Your task to perform on an android device: Clear the shopping cart on amazon.com. Search for lenovo thinkpad on amazon.com, select the first entry, and add it to the cart. Image 0: 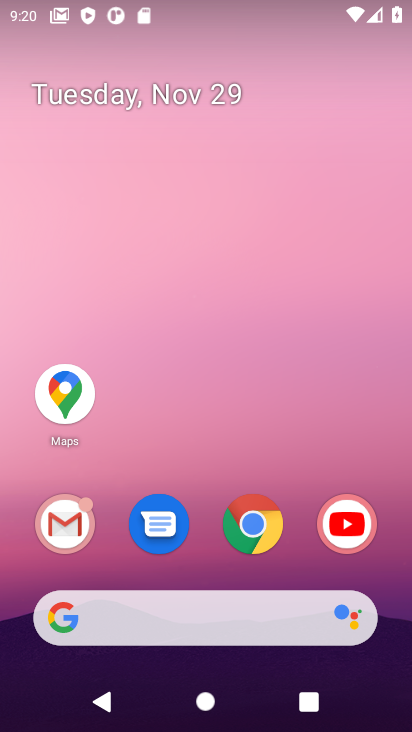
Step 0: click (266, 527)
Your task to perform on an android device: Clear the shopping cart on amazon.com. Search for lenovo thinkpad on amazon.com, select the first entry, and add it to the cart. Image 1: 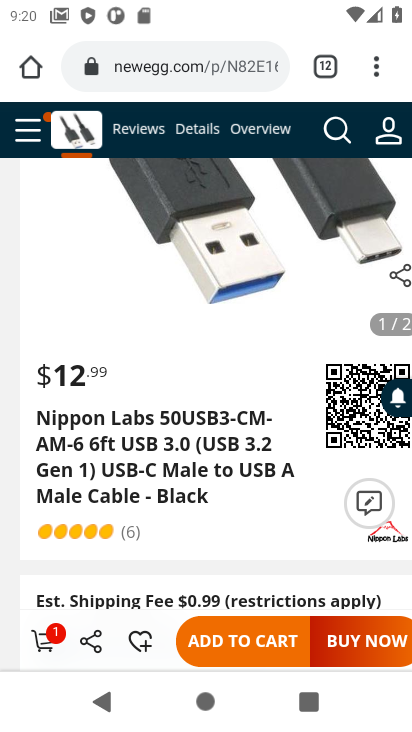
Step 1: click (177, 70)
Your task to perform on an android device: Clear the shopping cart on amazon.com. Search for lenovo thinkpad on amazon.com, select the first entry, and add it to the cart. Image 2: 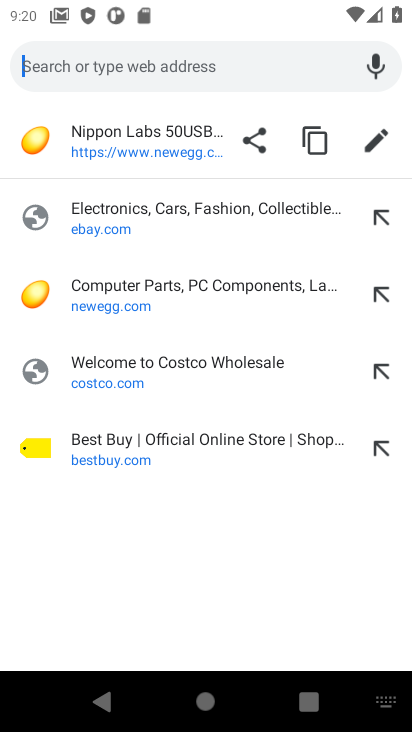
Step 2: type "amazon.com"
Your task to perform on an android device: Clear the shopping cart on amazon.com. Search for lenovo thinkpad on amazon.com, select the first entry, and add it to the cart. Image 3: 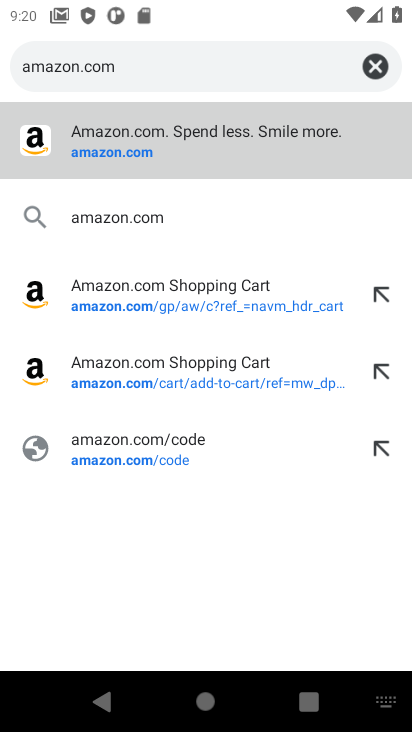
Step 3: click (102, 155)
Your task to perform on an android device: Clear the shopping cart on amazon.com. Search for lenovo thinkpad on amazon.com, select the first entry, and add it to the cart. Image 4: 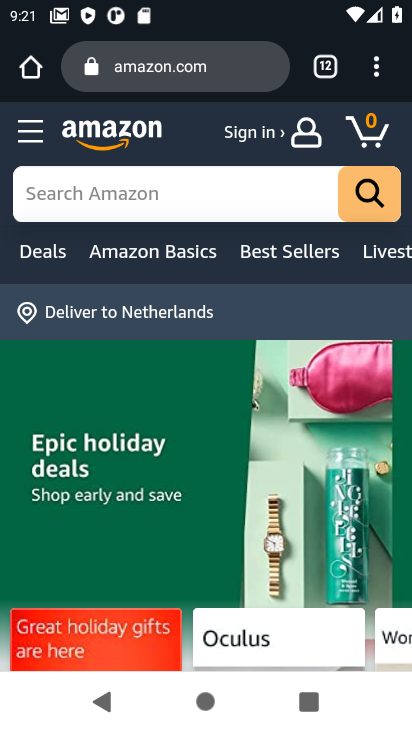
Step 4: click (367, 131)
Your task to perform on an android device: Clear the shopping cart on amazon.com. Search for lenovo thinkpad on amazon.com, select the first entry, and add it to the cart. Image 5: 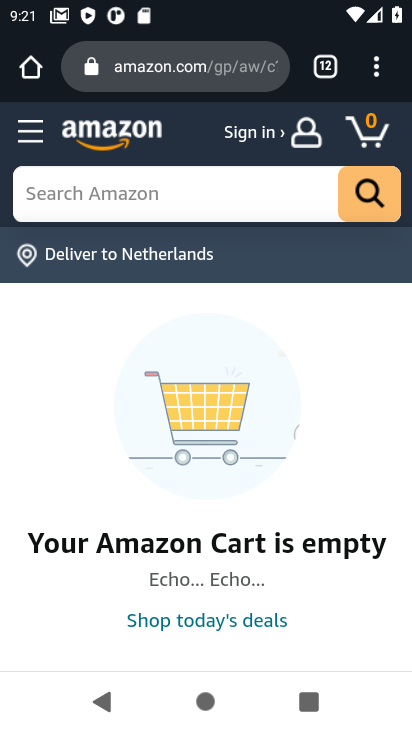
Step 5: click (76, 195)
Your task to perform on an android device: Clear the shopping cart on amazon.com. Search for lenovo thinkpad on amazon.com, select the first entry, and add it to the cart. Image 6: 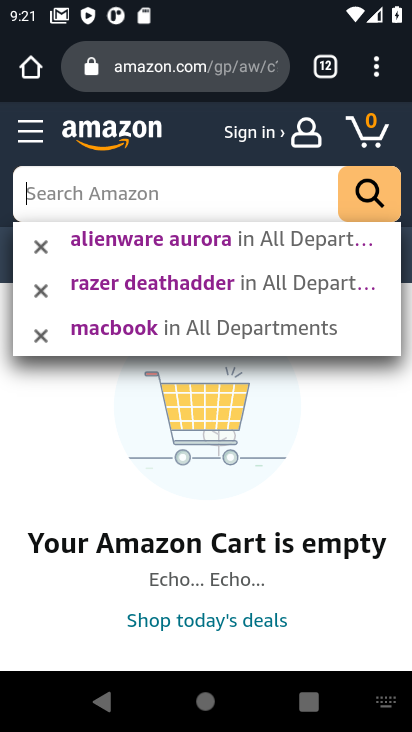
Step 6: type "lenovo thinkpad"
Your task to perform on an android device: Clear the shopping cart on amazon.com. Search for lenovo thinkpad on amazon.com, select the first entry, and add it to the cart. Image 7: 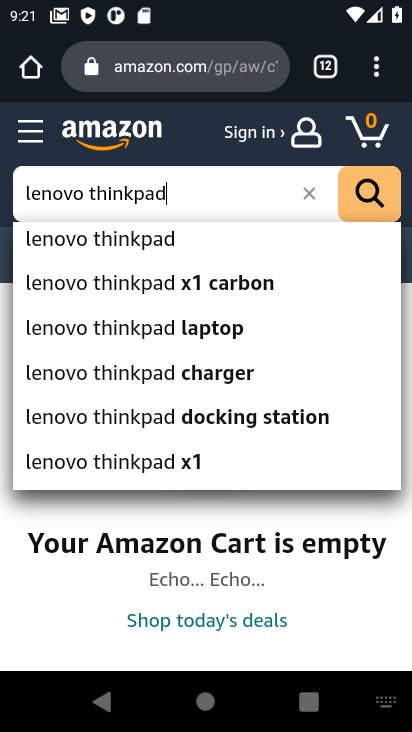
Step 7: click (121, 241)
Your task to perform on an android device: Clear the shopping cart on amazon.com. Search for lenovo thinkpad on amazon.com, select the first entry, and add it to the cart. Image 8: 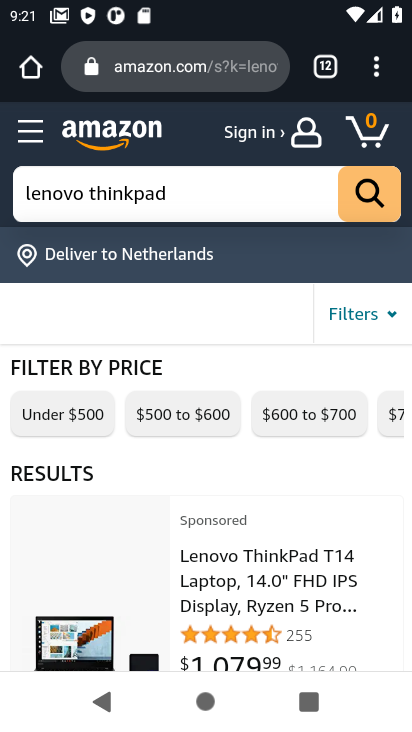
Step 8: drag from (98, 540) to (118, 358)
Your task to perform on an android device: Clear the shopping cart on amazon.com. Search for lenovo thinkpad on amazon.com, select the first entry, and add it to the cart. Image 9: 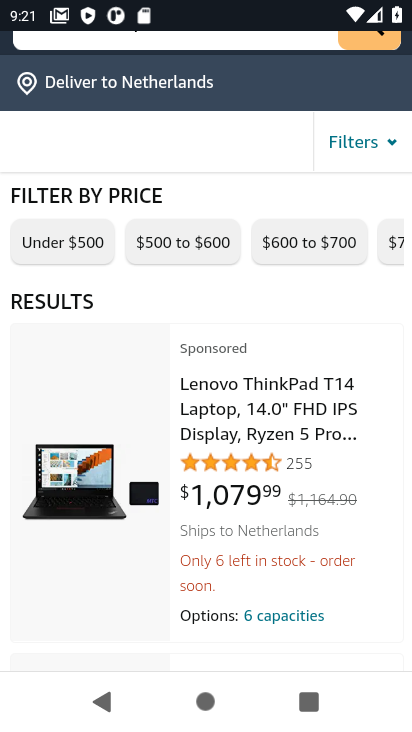
Step 9: click (246, 428)
Your task to perform on an android device: Clear the shopping cart on amazon.com. Search for lenovo thinkpad on amazon.com, select the first entry, and add it to the cart. Image 10: 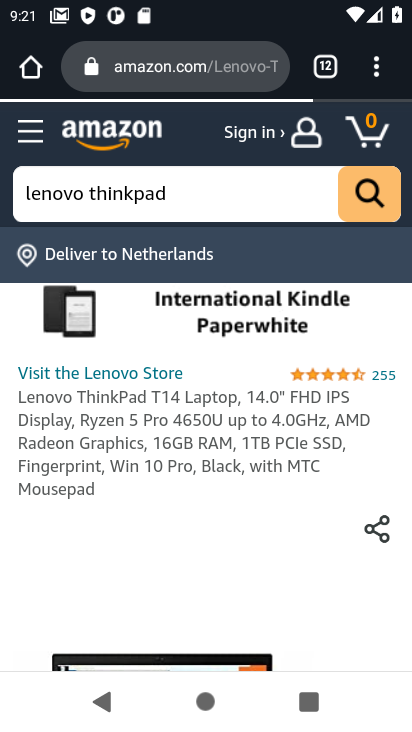
Step 10: drag from (166, 527) to (162, 305)
Your task to perform on an android device: Clear the shopping cart on amazon.com. Search for lenovo thinkpad on amazon.com, select the first entry, and add it to the cart. Image 11: 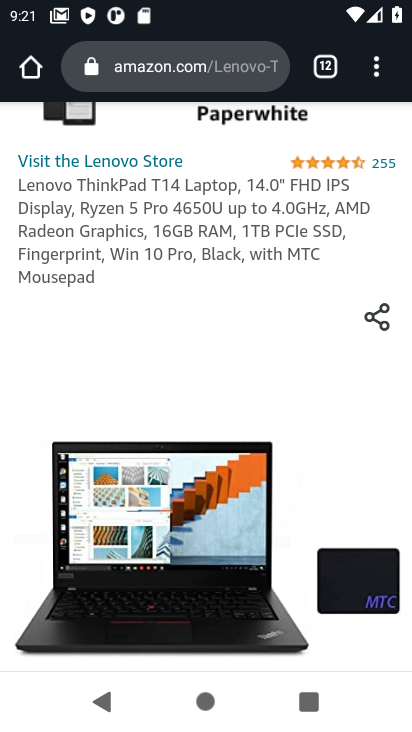
Step 11: drag from (152, 490) to (152, 246)
Your task to perform on an android device: Clear the shopping cart on amazon.com. Search for lenovo thinkpad on amazon.com, select the first entry, and add it to the cart. Image 12: 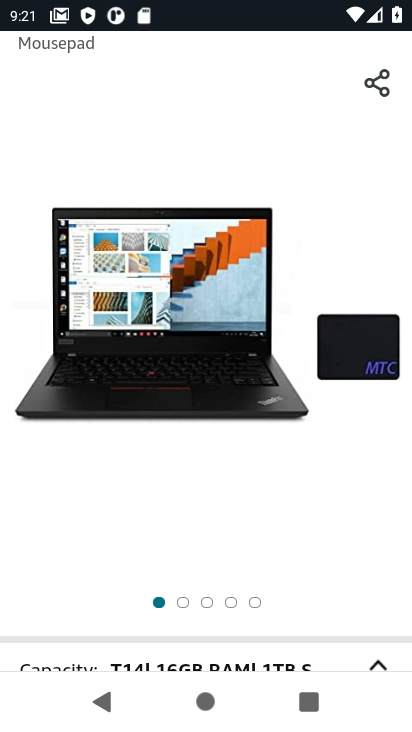
Step 12: drag from (140, 466) to (148, 246)
Your task to perform on an android device: Clear the shopping cart on amazon.com. Search for lenovo thinkpad on amazon.com, select the first entry, and add it to the cart. Image 13: 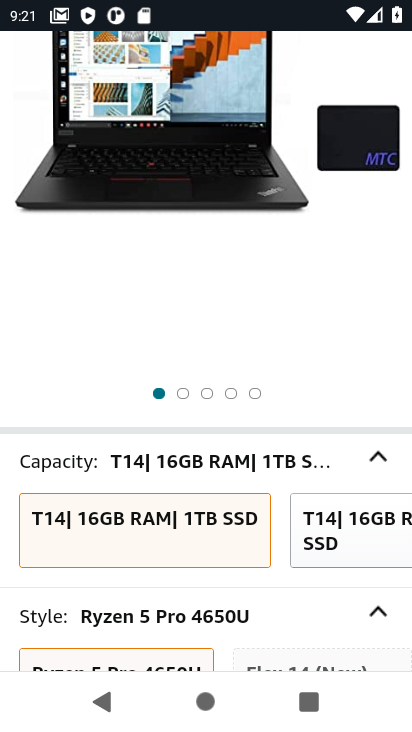
Step 13: drag from (153, 504) to (164, 272)
Your task to perform on an android device: Clear the shopping cart on amazon.com. Search for lenovo thinkpad on amazon.com, select the first entry, and add it to the cart. Image 14: 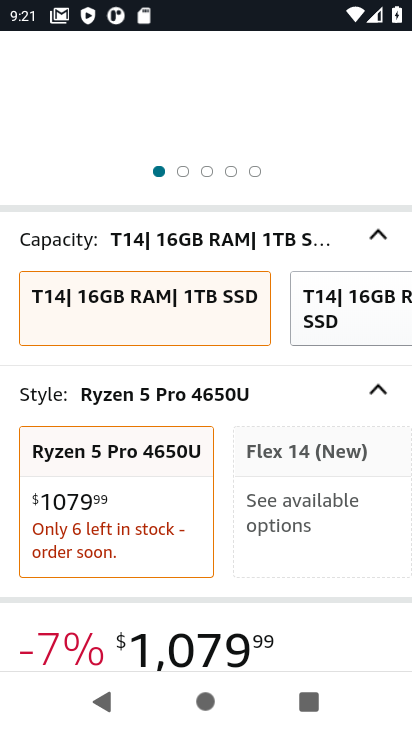
Step 14: drag from (174, 489) to (167, 229)
Your task to perform on an android device: Clear the shopping cart on amazon.com. Search for lenovo thinkpad on amazon.com, select the first entry, and add it to the cart. Image 15: 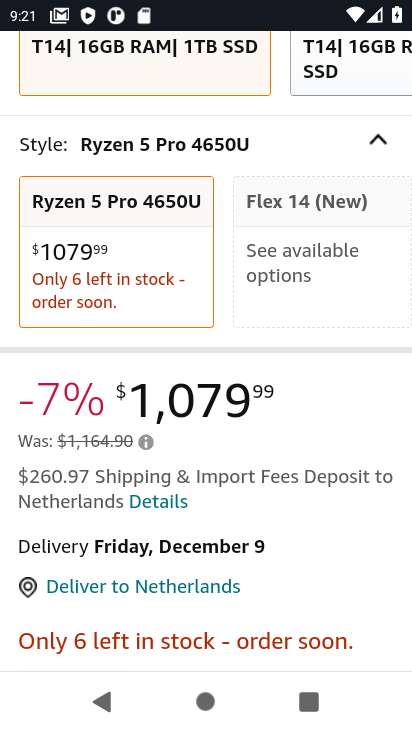
Step 15: drag from (170, 448) to (172, 238)
Your task to perform on an android device: Clear the shopping cart on amazon.com. Search for lenovo thinkpad on amazon.com, select the first entry, and add it to the cart. Image 16: 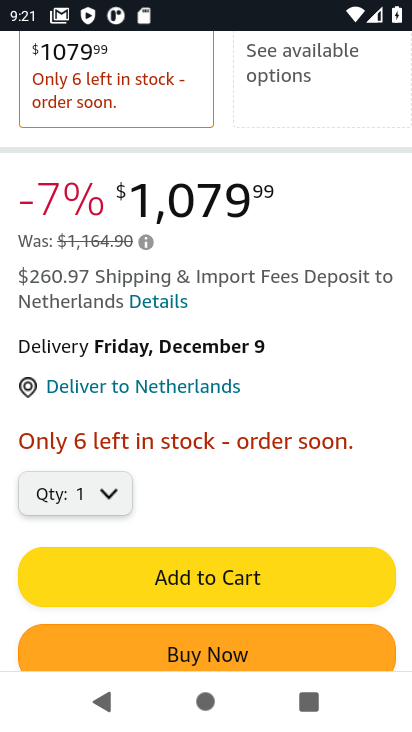
Step 16: click (193, 570)
Your task to perform on an android device: Clear the shopping cart on amazon.com. Search for lenovo thinkpad on amazon.com, select the first entry, and add it to the cart. Image 17: 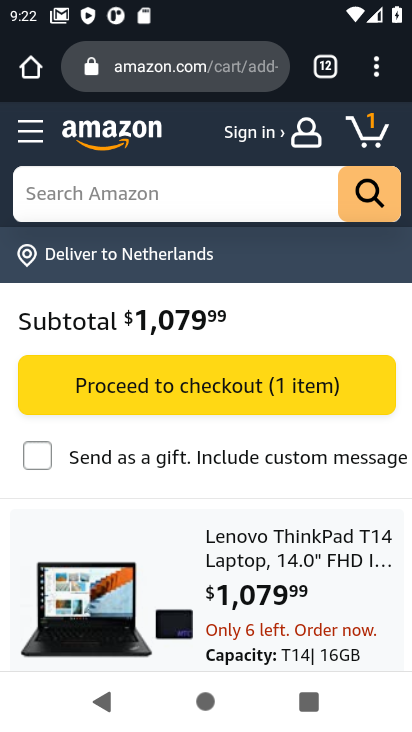
Step 17: task complete